Your task to perform on an android device: Open CNN.com Image 0: 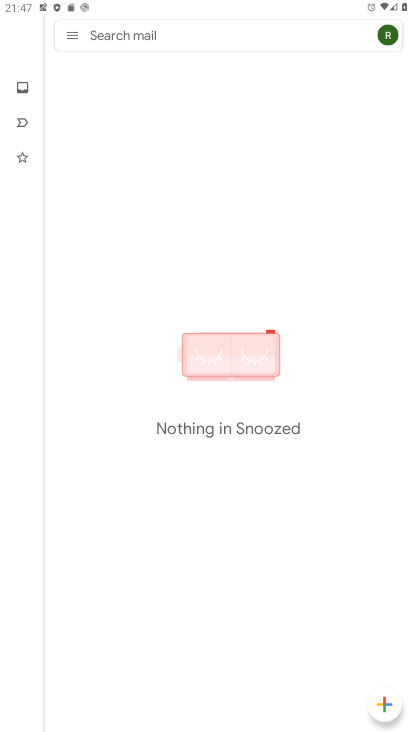
Step 0: drag from (257, 554) to (290, 359)
Your task to perform on an android device: Open CNN.com Image 1: 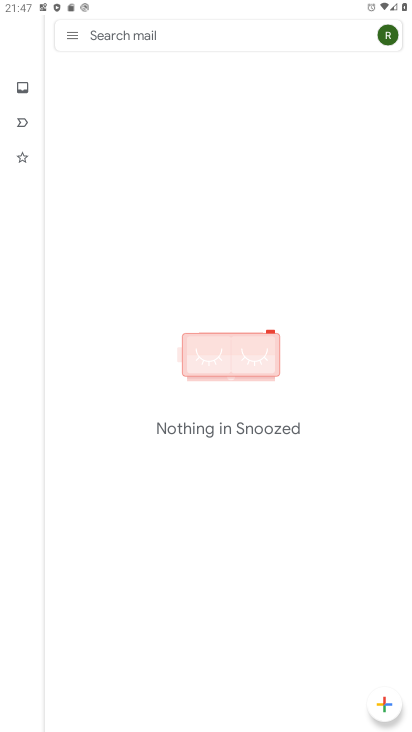
Step 1: drag from (199, 620) to (200, 164)
Your task to perform on an android device: Open CNN.com Image 2: 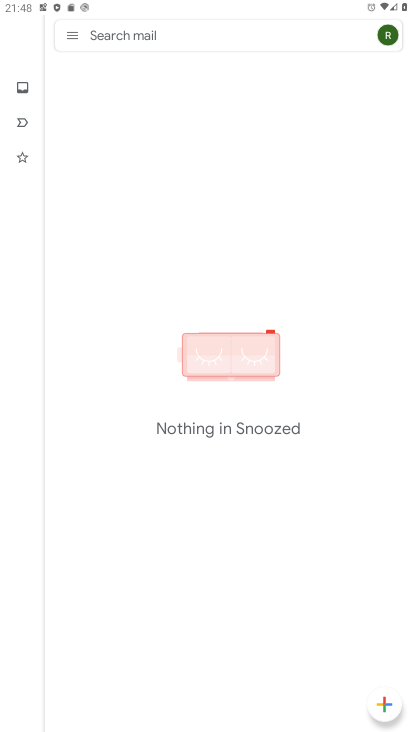
Step 2: press home button
Your task to perform on an android device: Open CNN.com Image 3: 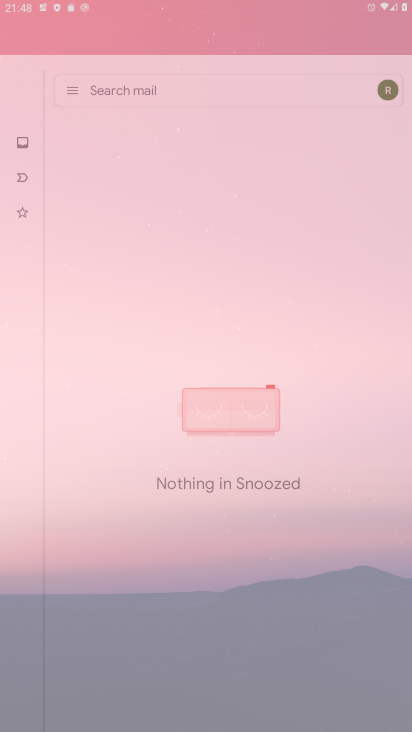
Step 3: drag from (236, 547) to (284, 162)
Your task to perform on an android device: Open CNN.com Image 4: 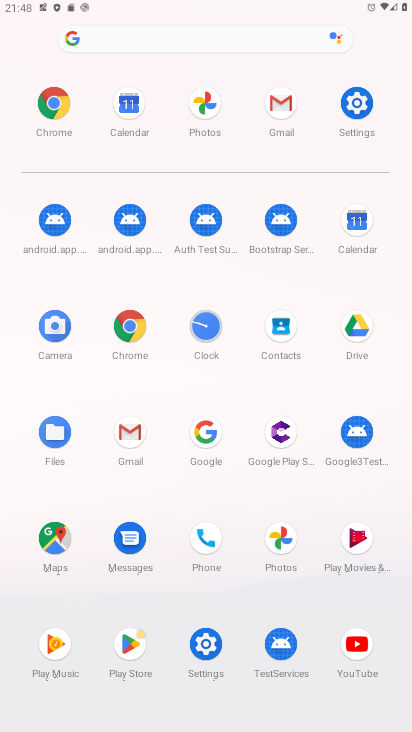
Step 4: click (119, 335)
Your task to perform on an android device: Open CNN.com Image 5: 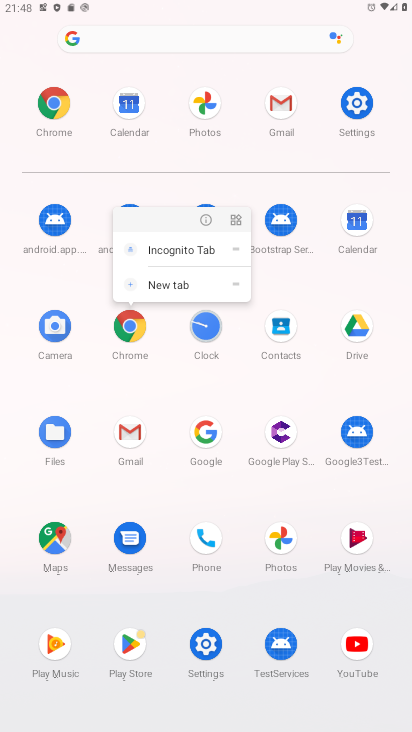
Step 5: click (204, 218)
Your task to perform on an android device: Open CNN.com Image 6: 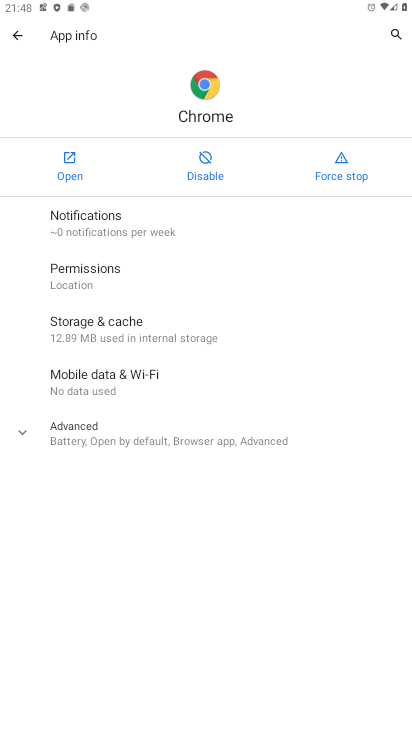
Step 6: click (79, 155)
Your task to perform on an android device: Open CNN.com Image 7: 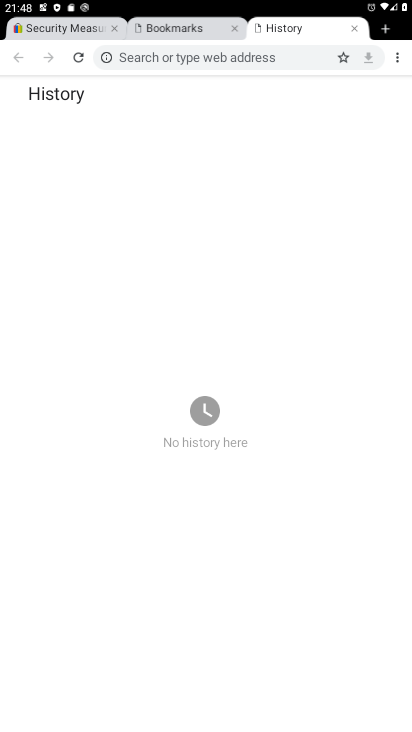
Step 7: drag from (256, 465) to (274, 218)
Your task to perform on an android device: Open CNN.com Image 8: 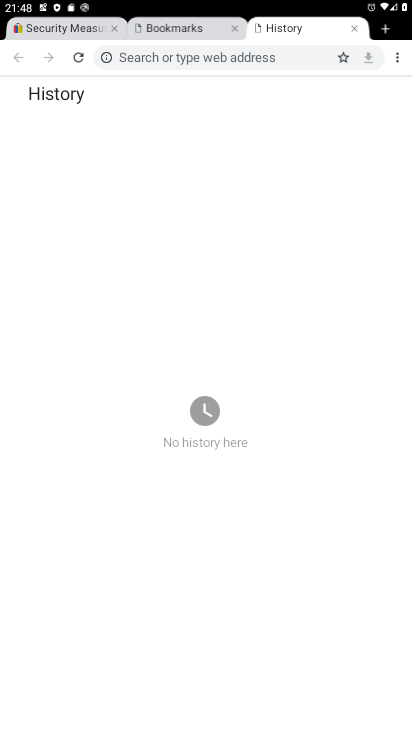
Step 8: click (267, 53)
Your task to perform on an android device: Open CNN.com Image 9: 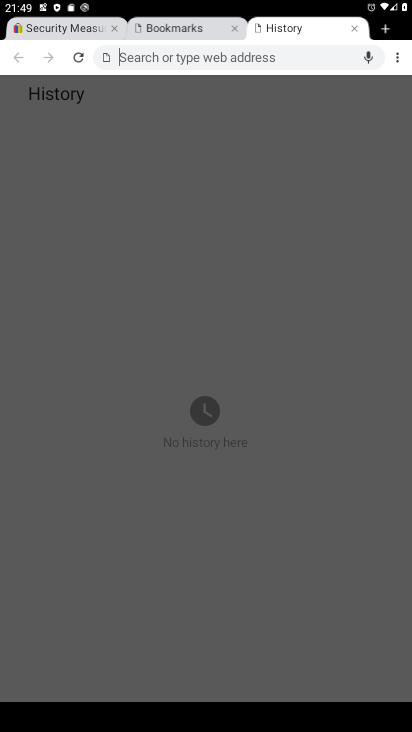
Step 9: drag from (287, 368) to (222, 49)
Your task to perform on an android device: Open CNN.com Image 10: 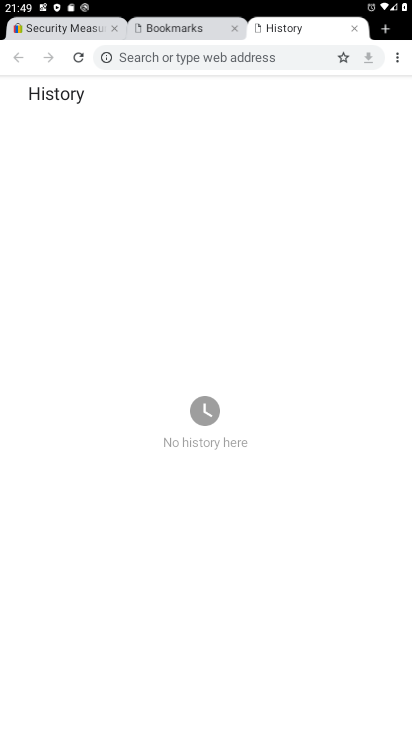
Step 10: type "cnn.com"
Your task to perform on an android device: Open CNN.com Image 11: 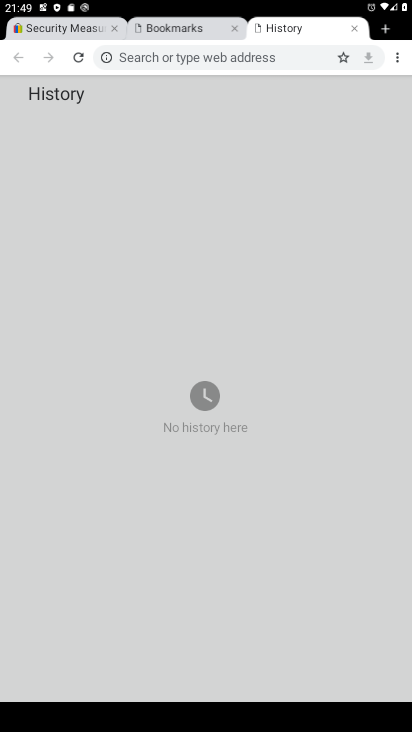
Step 11: click (201, 52)
Your task to perform on an android device: Open CNN.com Image 12: 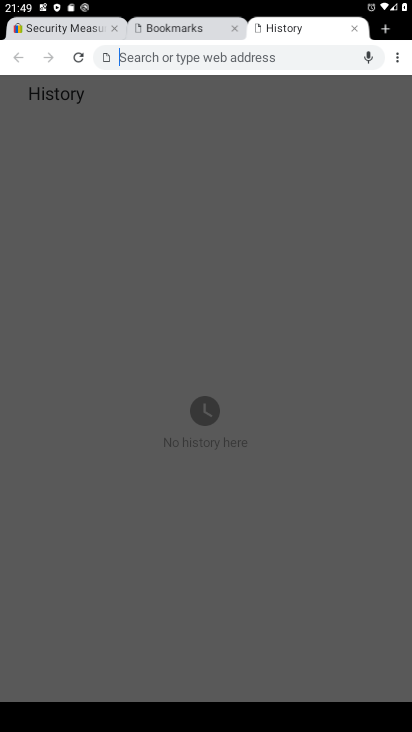
Step 12: type "cnn.com"
Your task to perform on an android device: Open CNN.com Image 13: 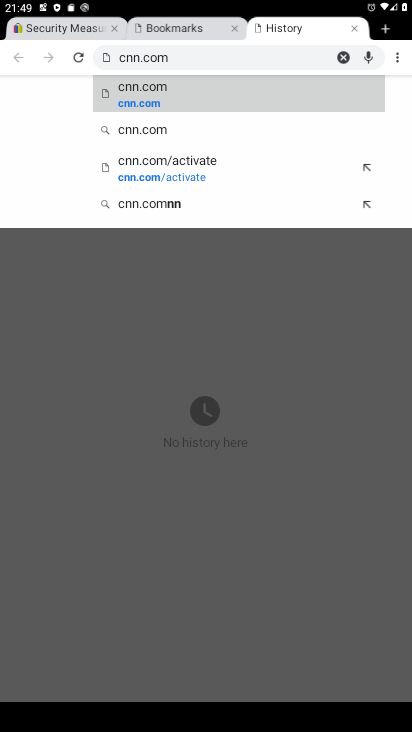
Step 13: click (139, 94)
Your task to perform on an android device: Open CNN.com Image 14: 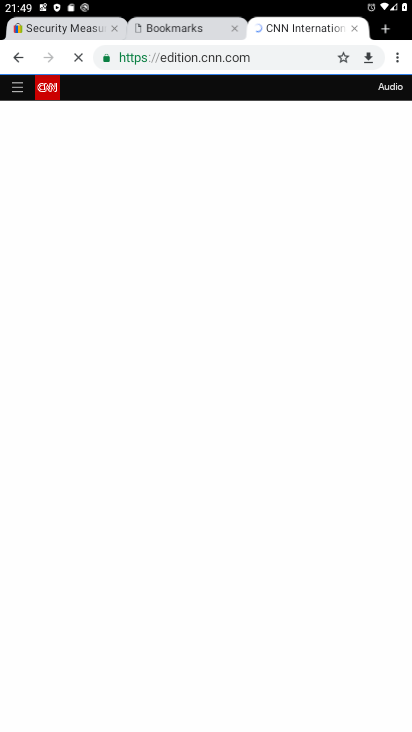
Step 14: task complete